Your task to perform on an android device: Open calendar and show me the fourth week of next month Image 0: 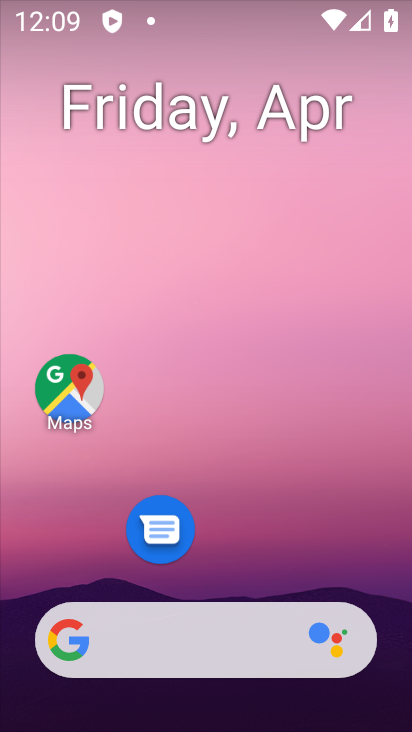
Step 0: drag from (233, 554) to (333, 14)
Your task to perform on an android device: Open calendar and show me the fourth week of next month Image 1: 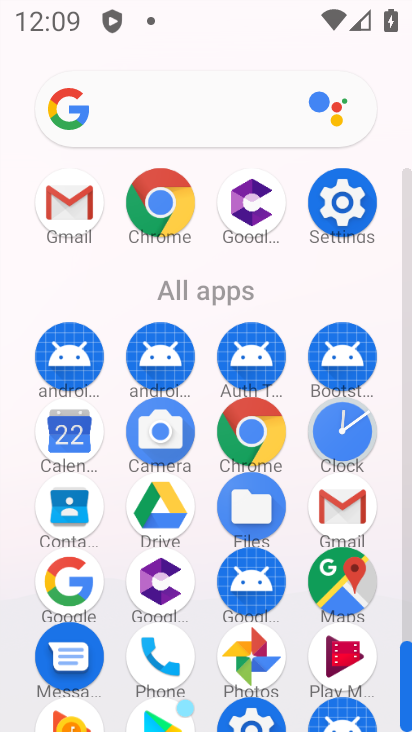
Step 1: click (79, 434)
Your task to perform on an android device: Open calendar and show me the fourth week of next month Image 2: 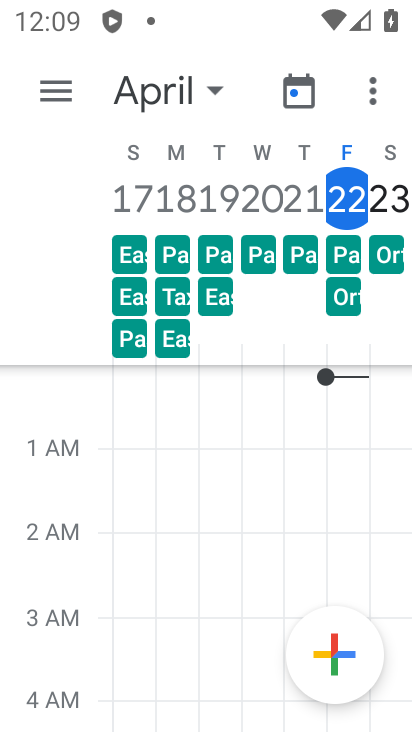
Step 2: task complete